Your task to perform on an android device: Open Yahoo.com Image 0: 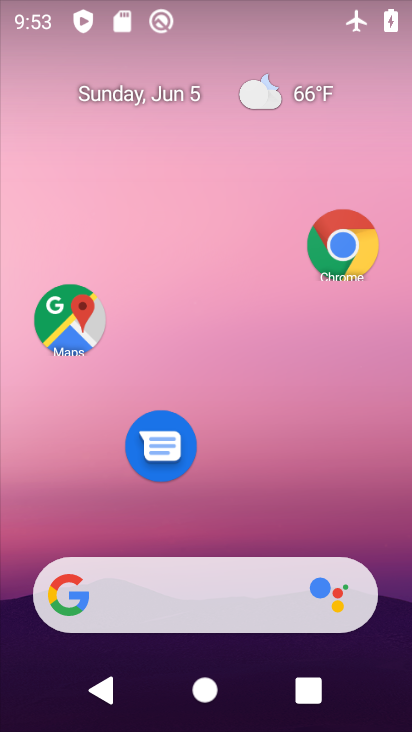
Step 0: click (348, 268)
Your task to perform on an android device: Open Yahoo.com Image 1: 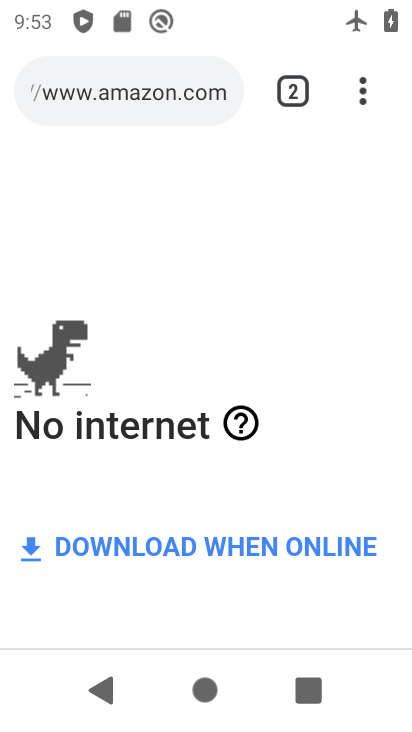
Step 1: click (300, 103)
Your task to perform on an android device: Open Yahoo.com Image 2: 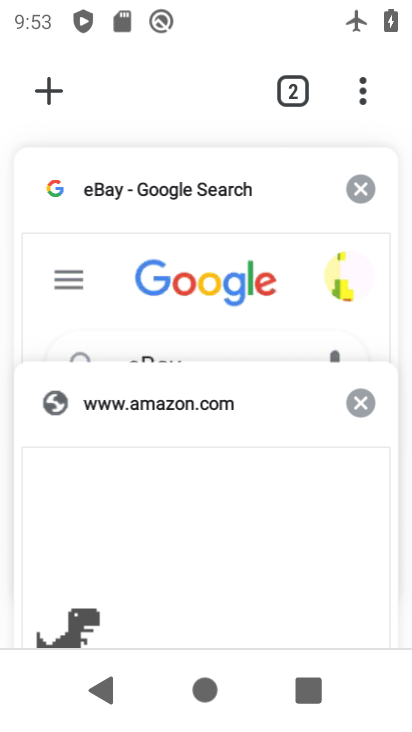
Step 2: click (54, 99)
Your task to perform on an android device: Open Yahoo.com Image 3: 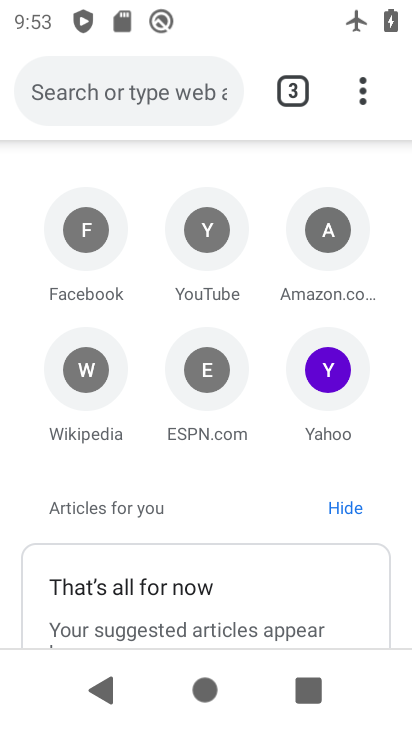
Step 3: click (315, 392)
Your task to perform on an android device: Open Yahoo.com Image 4: 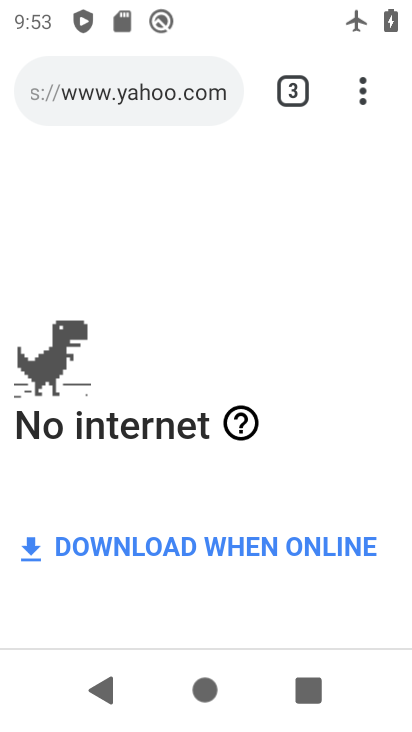
Step 4: task complete